Your task to perform on an android device: set the timer Image 0: 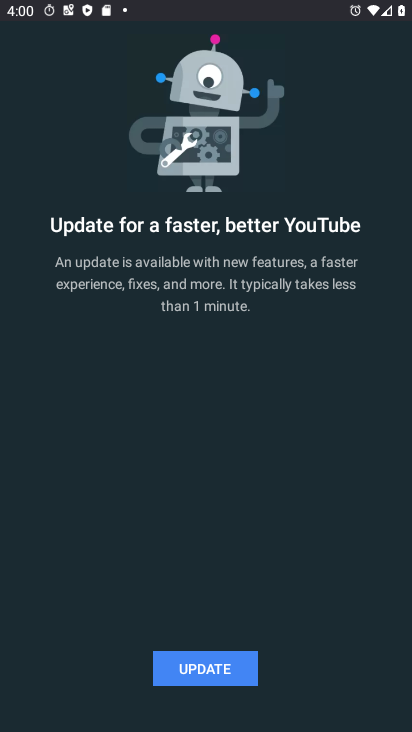
Step 0: press home button
Your task to perform on an android device: set the timer Image 1: 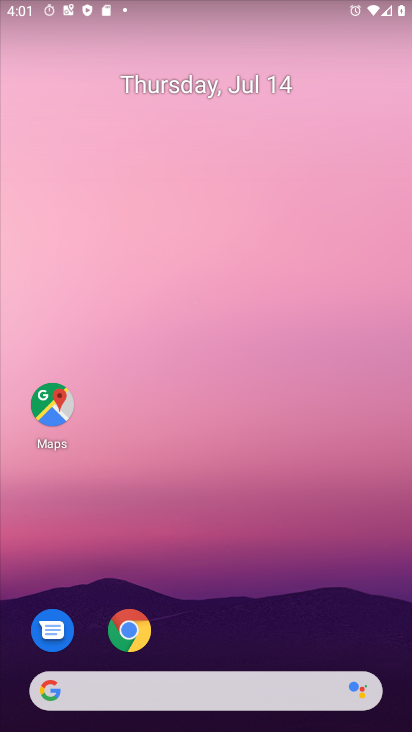
Step 1: drag from (218, 683) to (222, 88)
Your task to perform on an android device: set the timer Image 2: 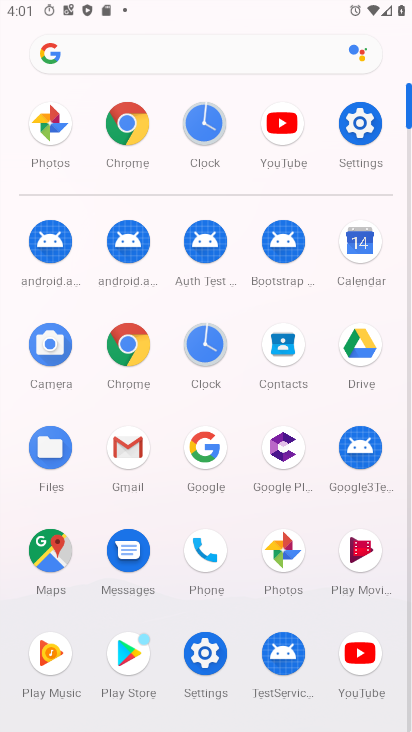
Step 2: click (210, 340)
Your task to perform on an android device: set the timer Image 3: 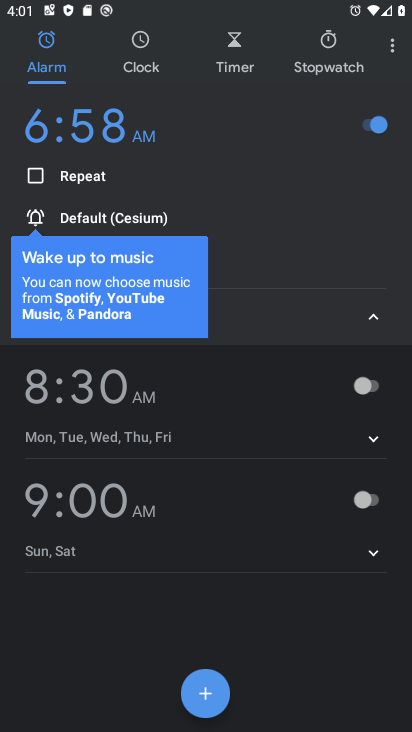
Step 3: click (236, 62)
Your task to perform on an android device: set the timer Image 4: 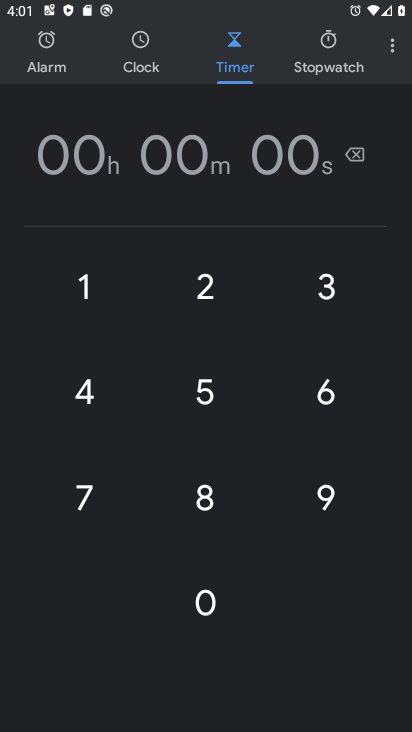
Step 4: click (210, 497)
Your task to perform on an android device: set the timer Image 5: 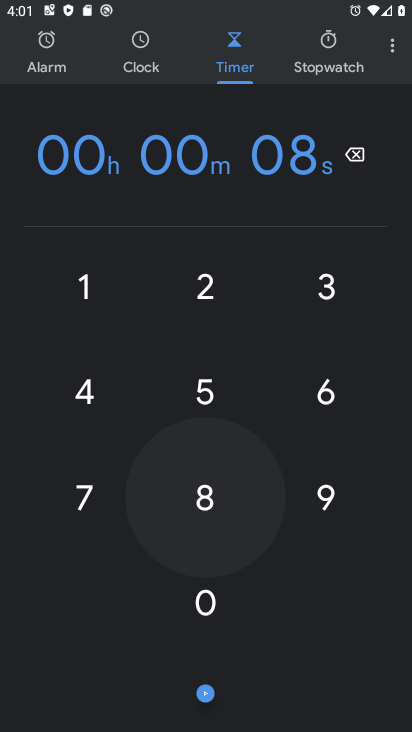
Step 5: click (199, 382)
Your task to perform on an android device: set the timer Image 6: 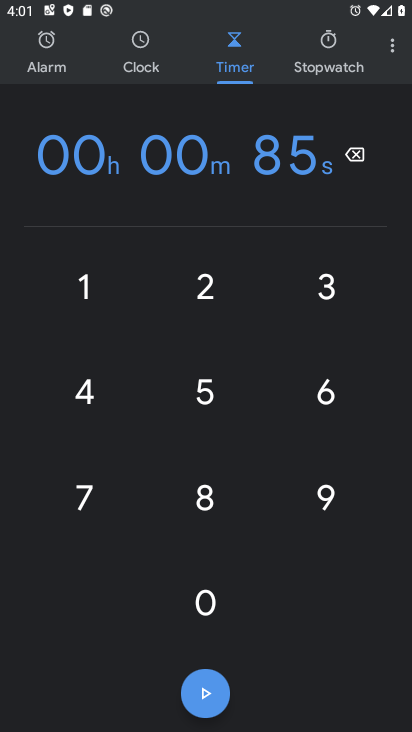
Step 6: click (85, 378)
Your task to perform on an android device: set the timer Image 7: 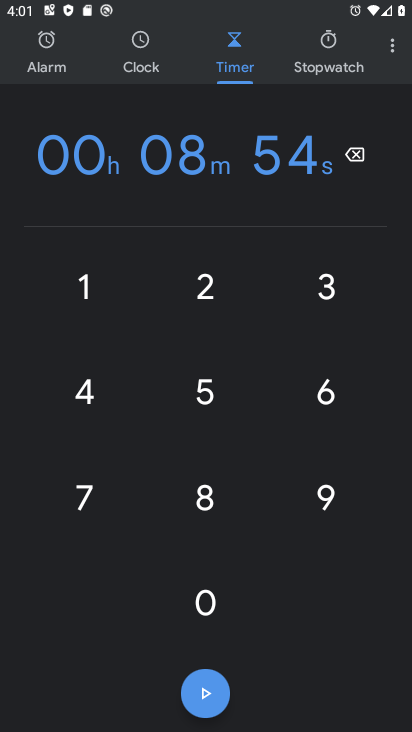
Step 7: click (95, 272)
Your task to perform on an android device: set the timer Image 8: 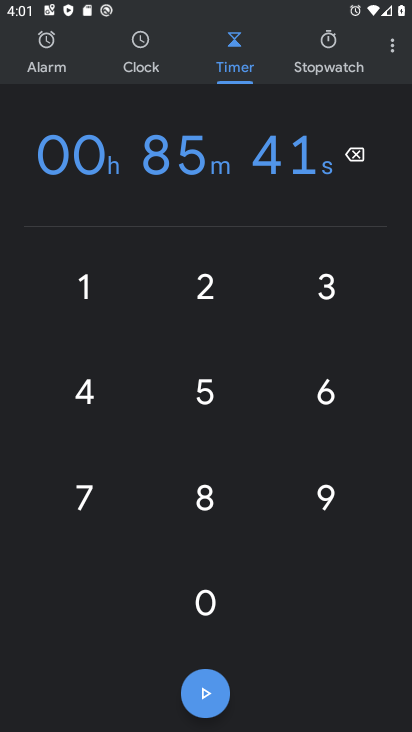
Step 8: click (201, 699)
Your task to perform on an android device: set the timer Image 9: 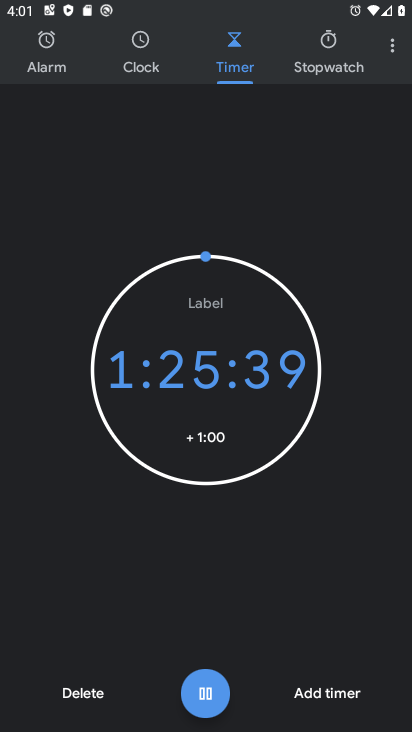
Step 9: task complete